Your task to perform on an android device: Open Google Maps and go to "Timeline" Image 0: 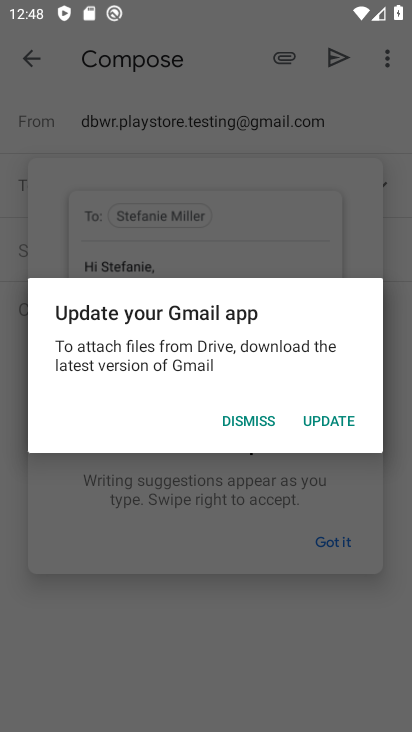
Step 0: press home button
Your task to perform on an android device: Open Google Maps and go to "Timeline" Image 1: 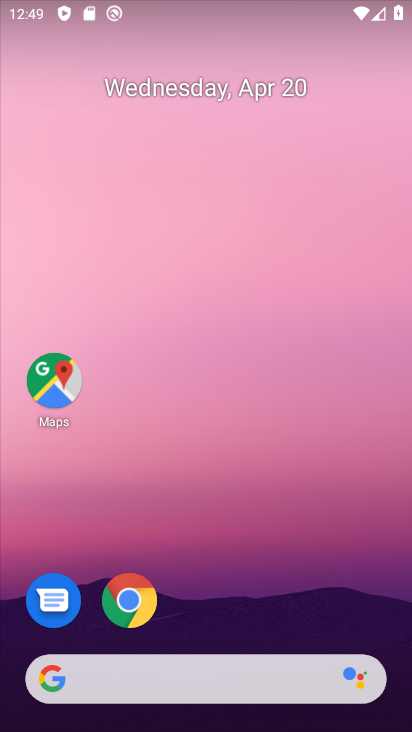
Step 1: drag from (291, 577) to (323, 255)
Your task to perform on an android device: Open Google Maps and go to "Timeline" Image 2: 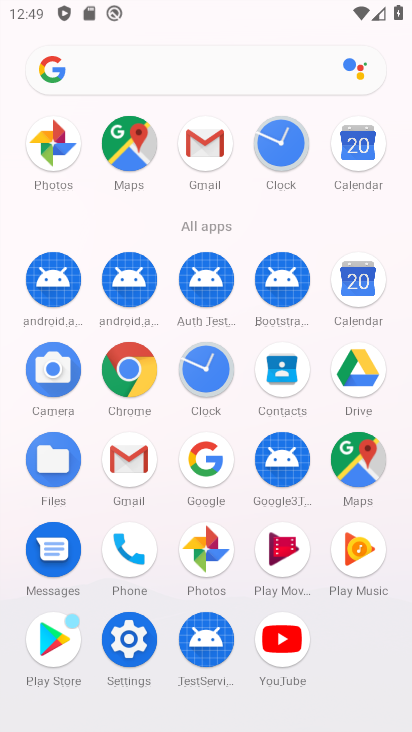
Step 2: click (347, 460)
Your task to perform on an android device: Open Google Maps and go to "Timeline" Image 3: 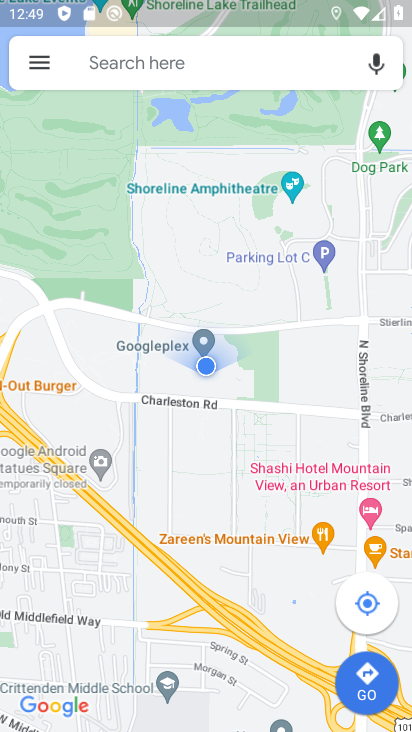
Step 3: click (39, 61)
Your task to perform on an android device: Open Google Maps and go to "Timeline" Image 4: 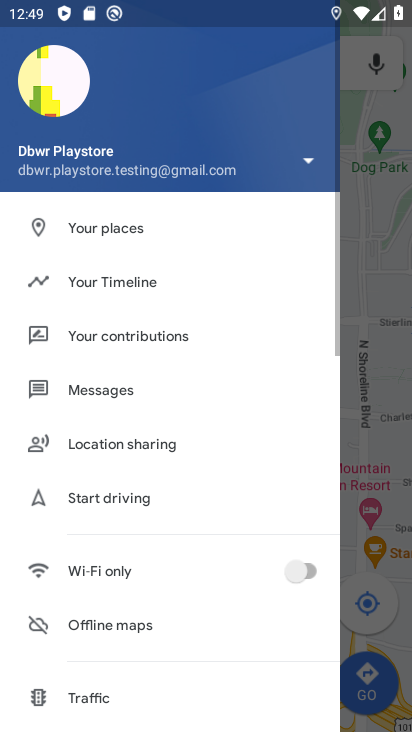
Step 4: click (116, 291)
Your task to perform on an android device: Open Google Maps and go to "Timeline" Image 5: 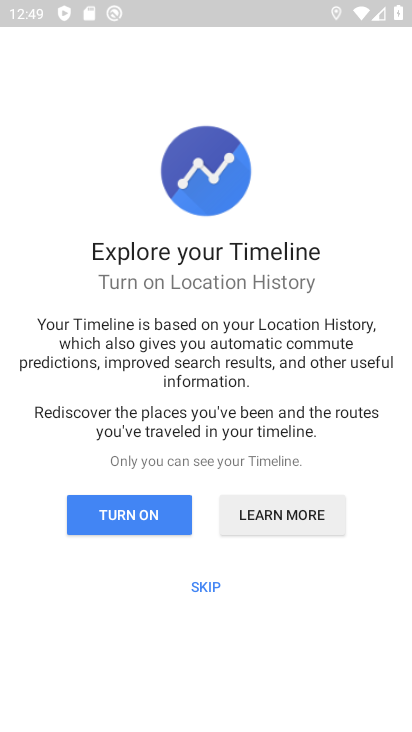
Step 5: click (191, 580)
Your task to perform on an android device: Open Google Maps and go to "Timeline" Image 6: 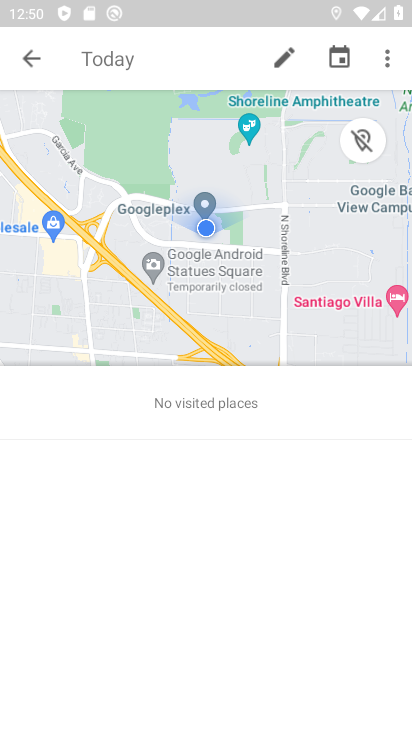
Step 6: task complete